Your task to perform on an android device: Open the phone app and click the voicemail tab. Image 0: 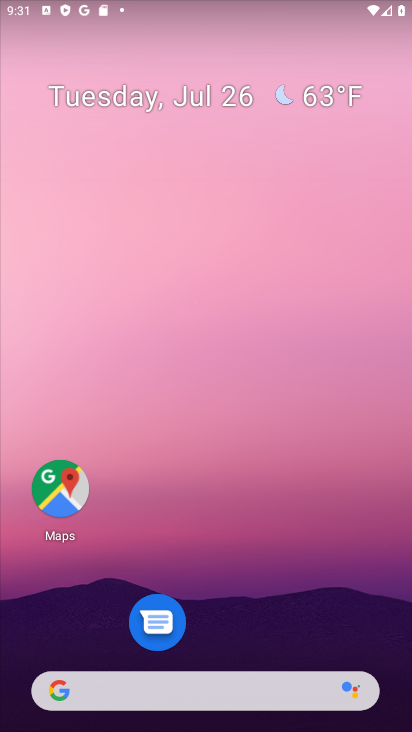
Step 0: drag from (310, 610) to (409, 5)
Your task to perform on an android device: Open the phone app and click the voicemail tab. Image 1: 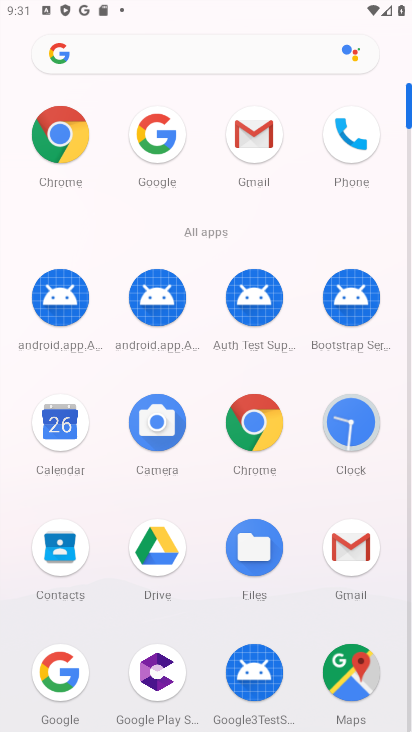
Step 1: drag from (336, 701) to (391, 65)
Your task to perform on an android device: Open the phone app and click the voicemail tab. Image 2: 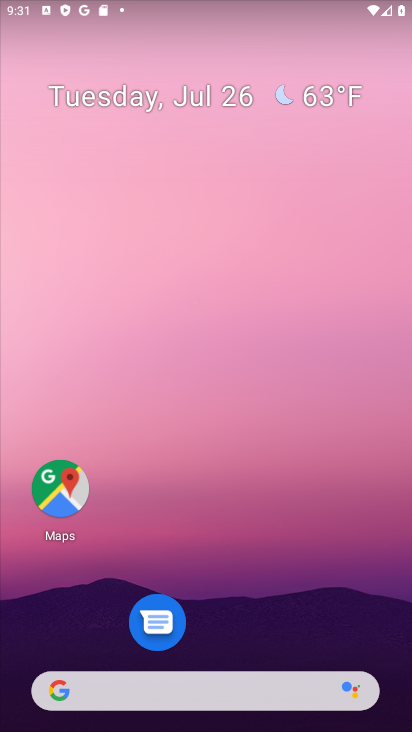
Step 2: drag from (257, 621) to (381, 50)
Your task to perform on an android device: Open the phone app and click the voicemail tab. Image 3: 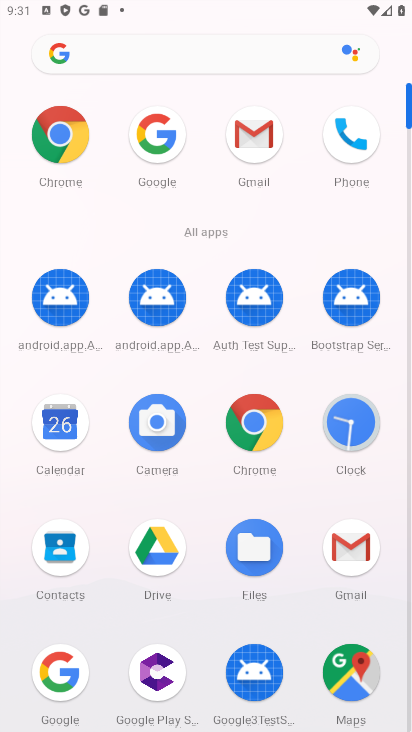
Step 3: click (366, 135)
Your task to perform on an android device: Open the phone app and click the voicemail tab. Image 4: 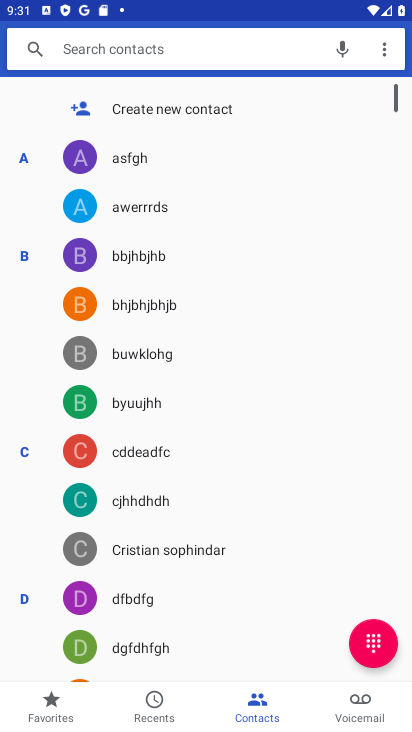
Step 4: click (340, 730)
Your task to perform on an android device: Open the phone app and click the voicemail tab. Image 5: 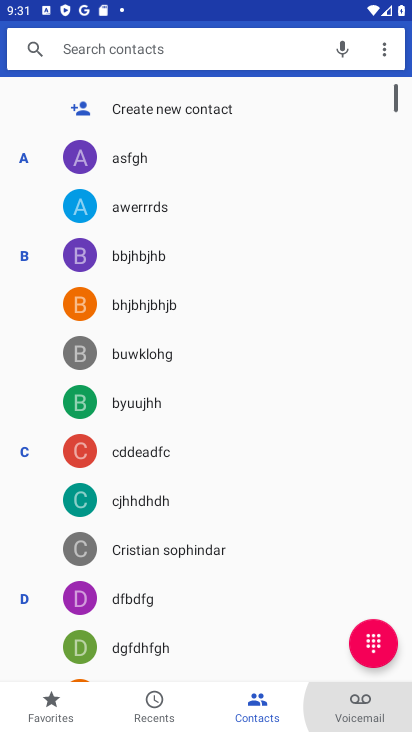
Step 5: click (348, 718)
Your task to perform on an android device: Open the phone app and click the voicemail tab. Image 6: 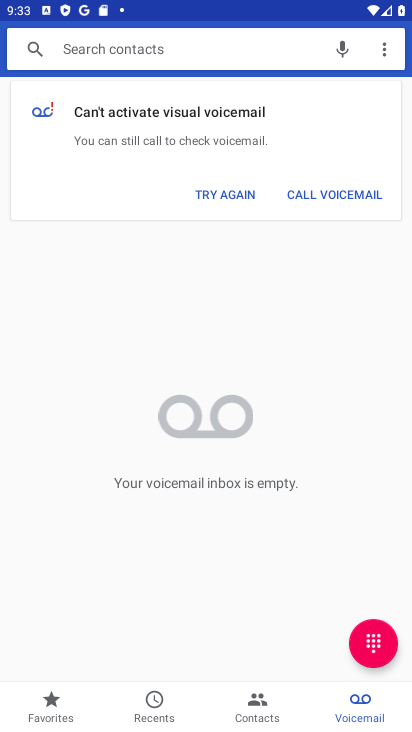
Step 6: task complete